Your task to perform on an android device: Go to Reddit.com Image 0: 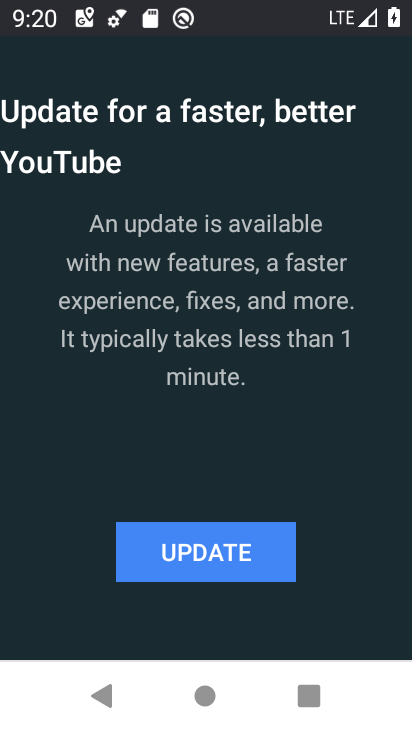
Step 0: press home button
Your task to perform on an android device: Go to Reddit.com Image 1: 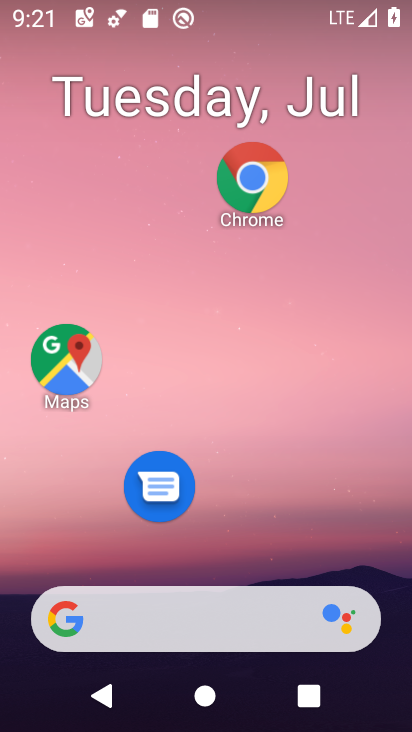
Step 1: drag from (294, 612) to (307, 315)
Your task to perform on an android device: Go to Reddit.com Image 2: 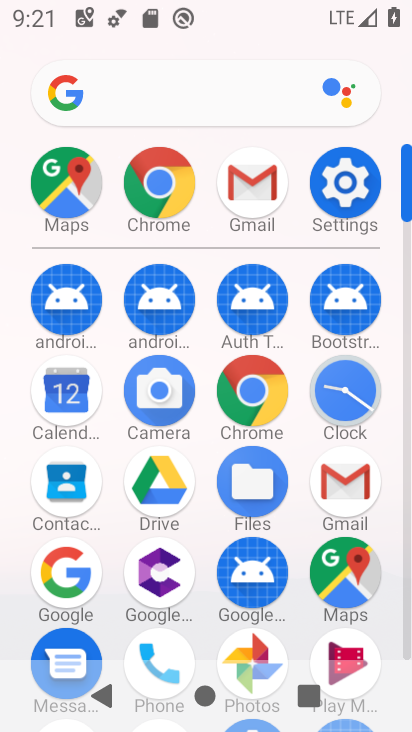
Step 2: click (172, 189)
Your task to perform on an android device: Go to Reddit.com Image 3: 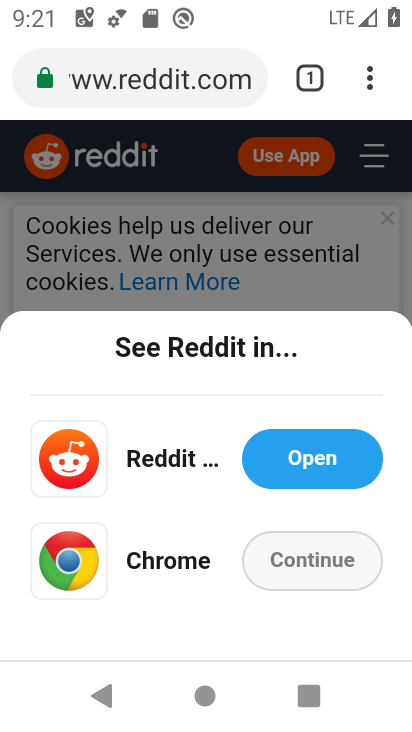
Step 3: task complete